Your task to perform on an android device: check storage Image 0: 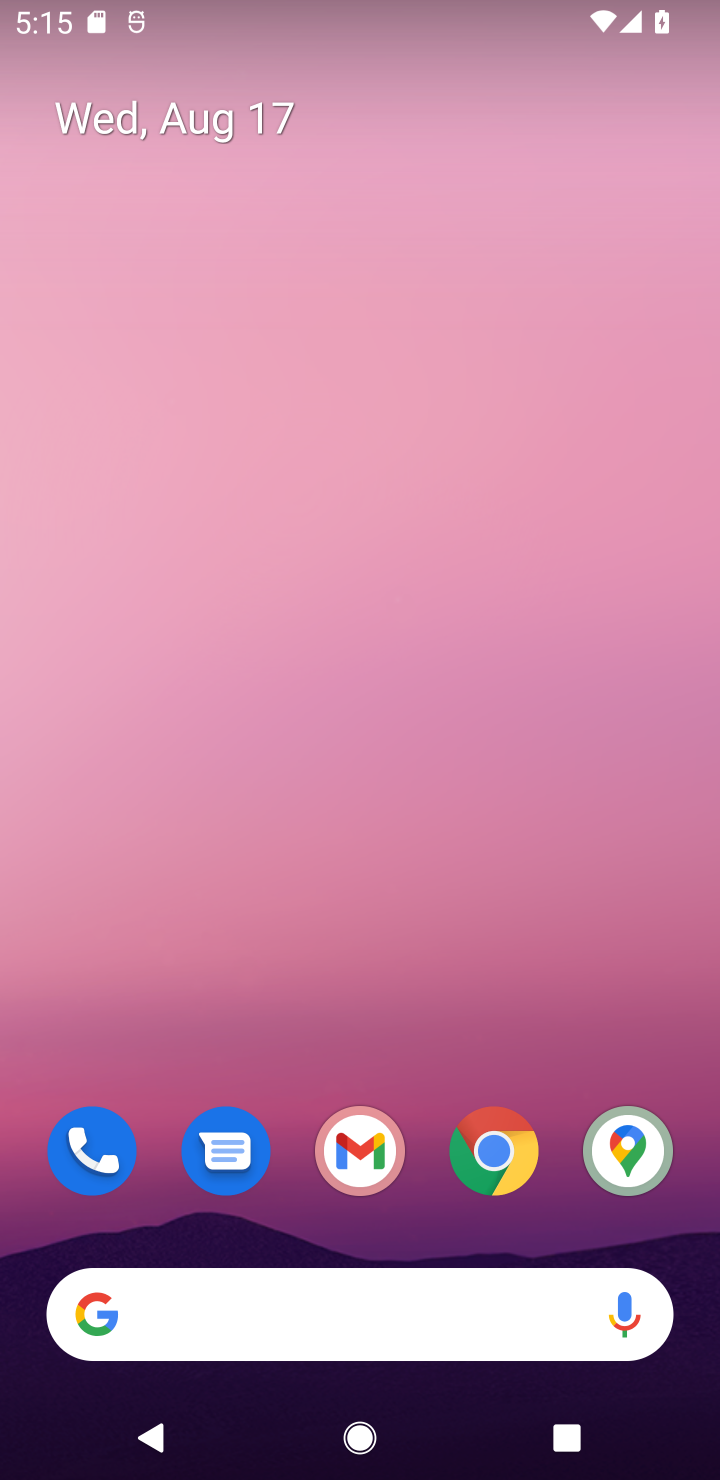
Step 0: drag from (570, 1220) to (548, 213)
Your task to perform on an android device: check storage Image 1: 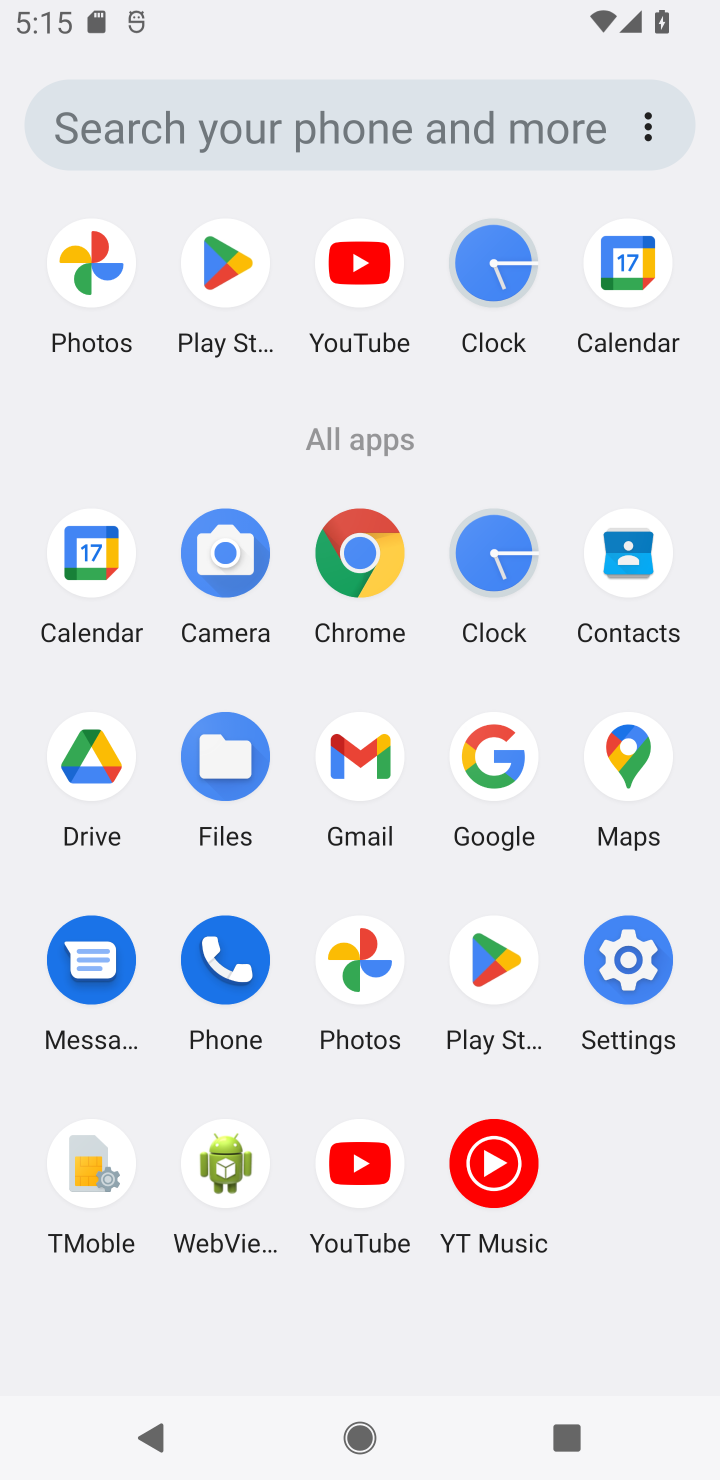
Step 1: click (629, 966)
Your task to perform on an android device: check storage Image 2: 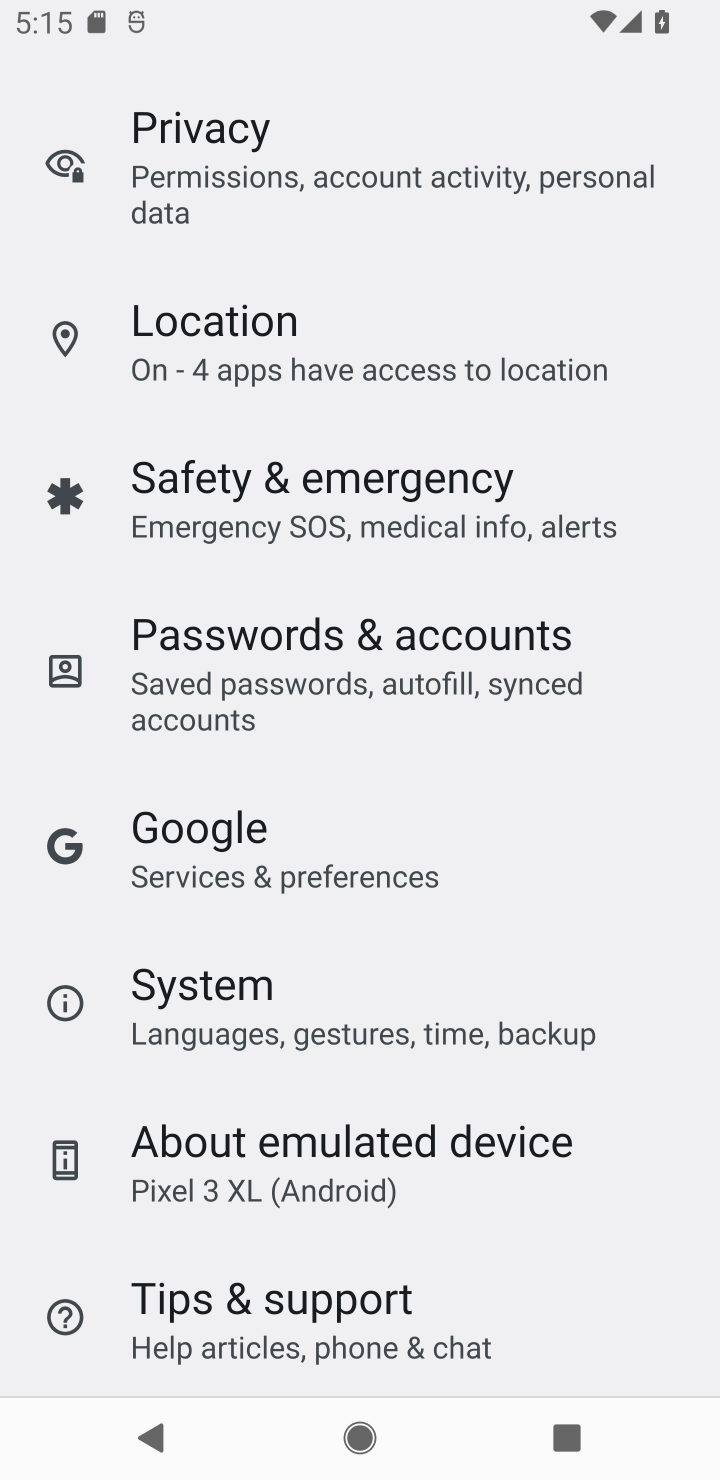
Step 2: drag from (647, 260) to (593, 982)
Your task to perform on an android device: check storage Image 3: 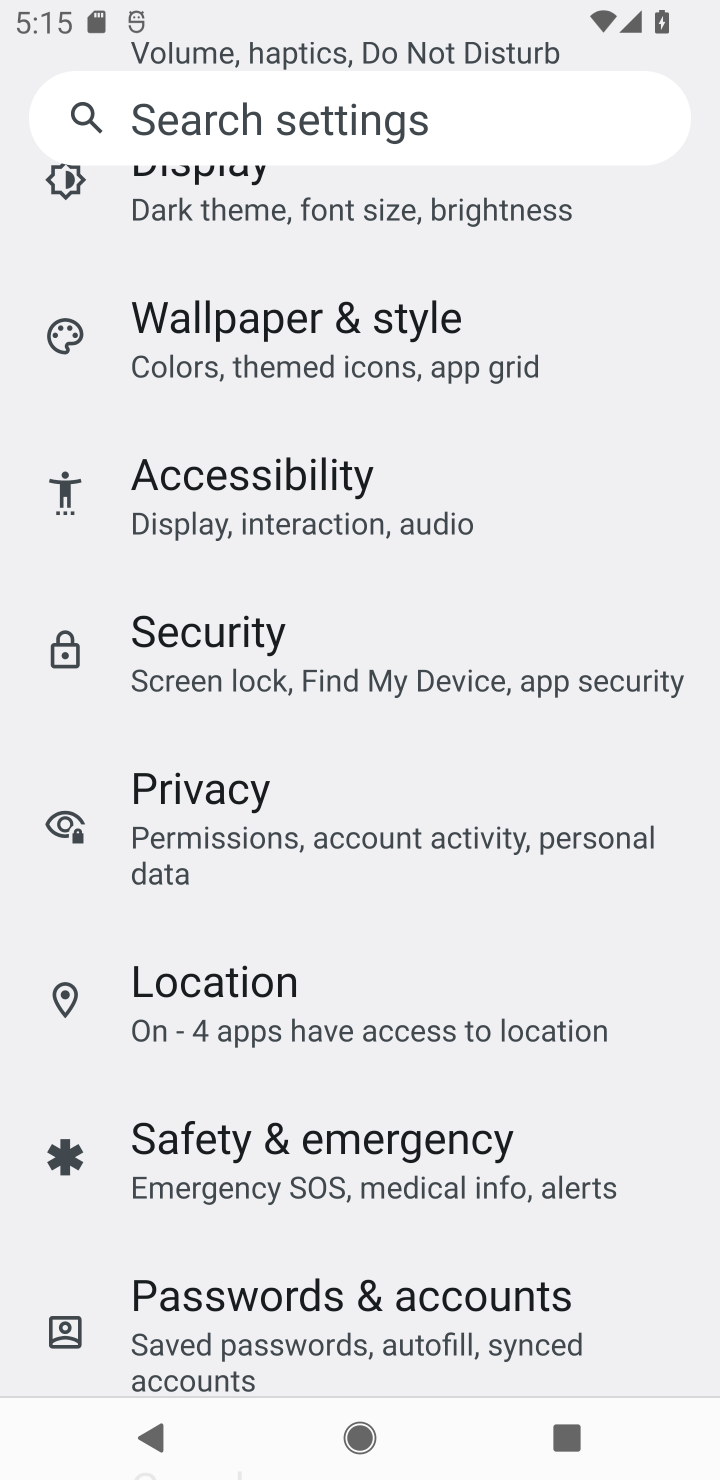
Step 3: drag from (611, 412) to (637, 1219)
Your task to perform on an android device: check storage Image 4: 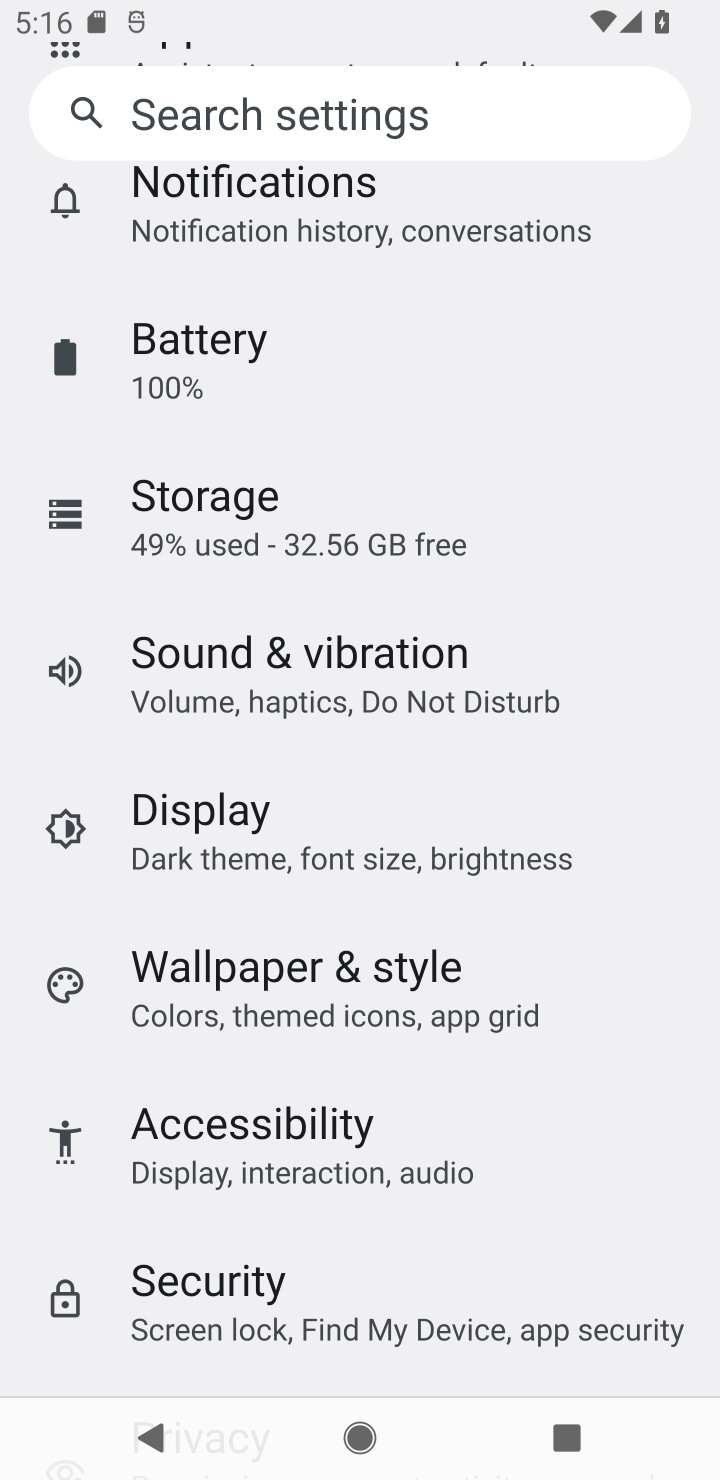
Step 4: click (213, 508)
Your task to perform on an android device: check storage Image 5: 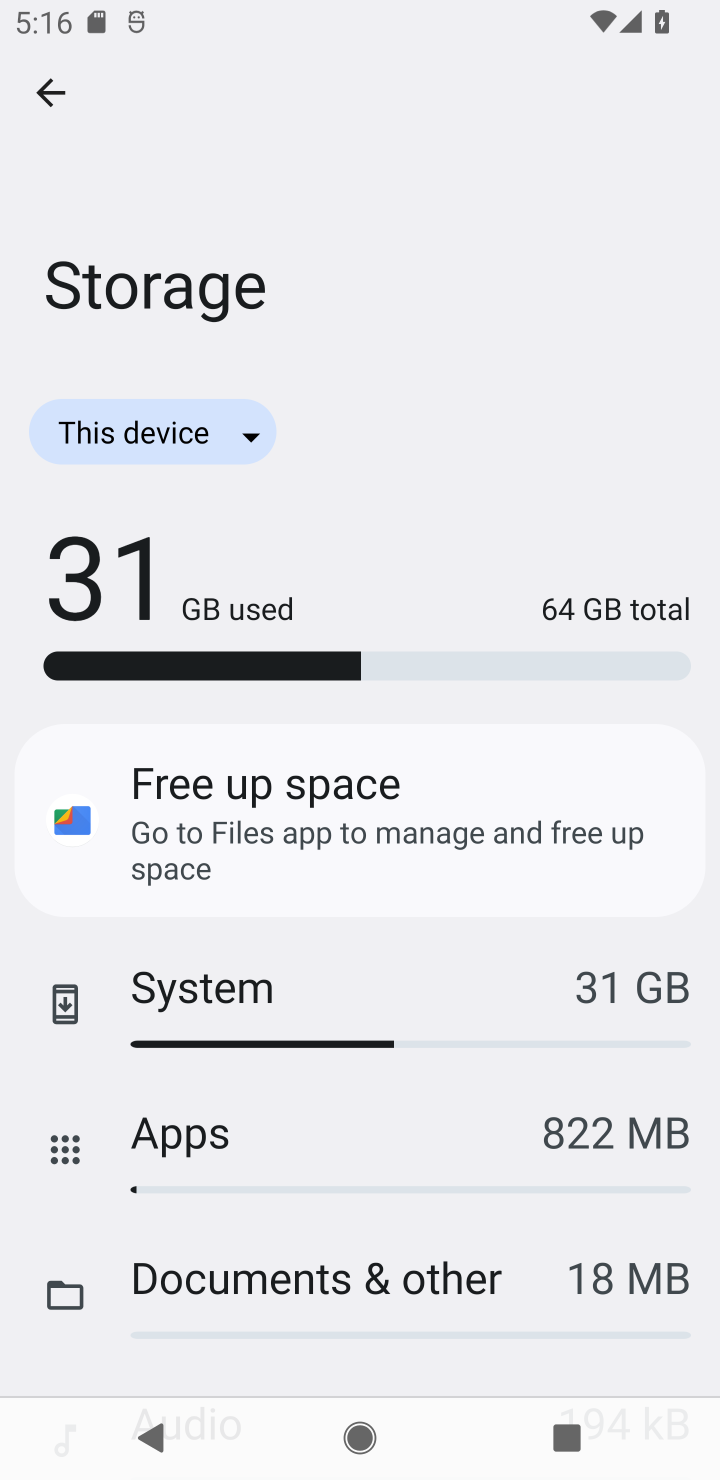
Step 5: task complete